Your task to perform on an android device: delete location history Image 0: 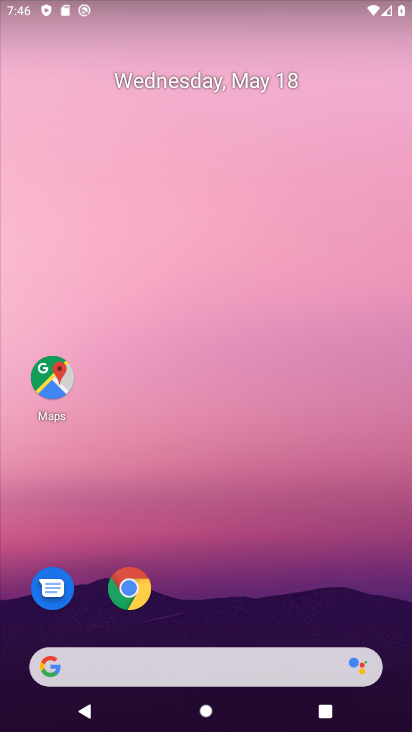
Step 0: drag from (195, 549) to (193, 39)
Your task to perform on an android device: delete location history Image 1: 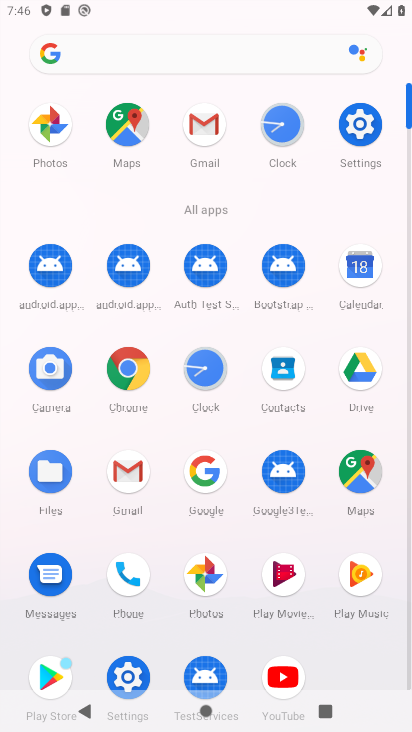
Step 1: click (360, 121)
Your task to perform on an android device: delete location history Image 2: 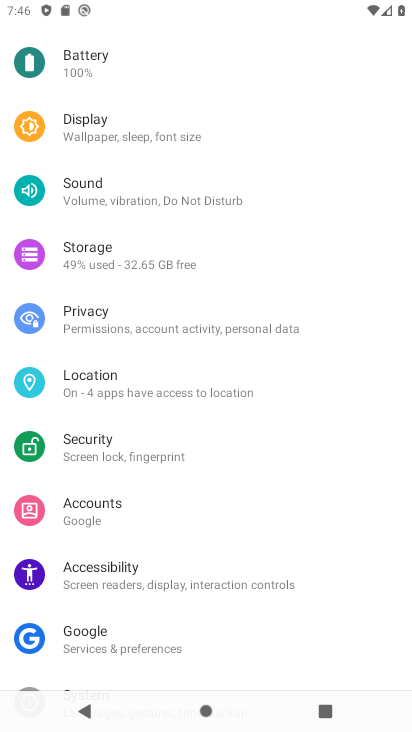
Step 2: click (141, 373)
Your task to perform on an android device: delete location history Image 3: 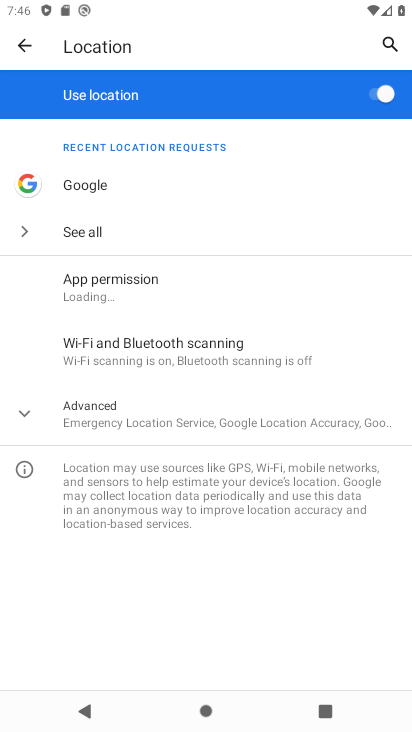
Step 3: click (129, 408)
Your task to perform on an android device: delete location history Image 4: 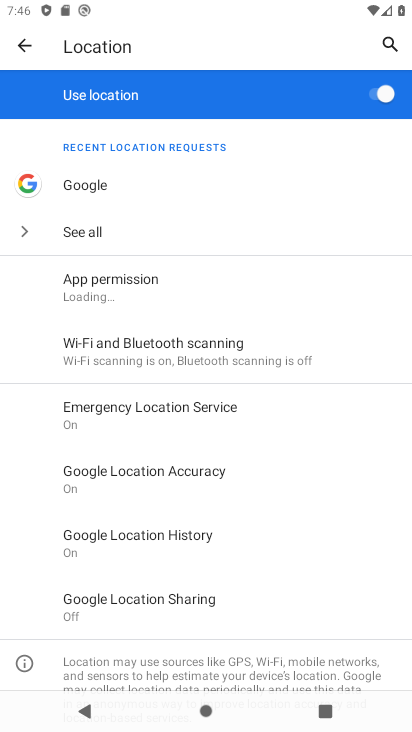
Step 4: click (183, 538)
Your task to perform on an android device: delete location history Image 5: 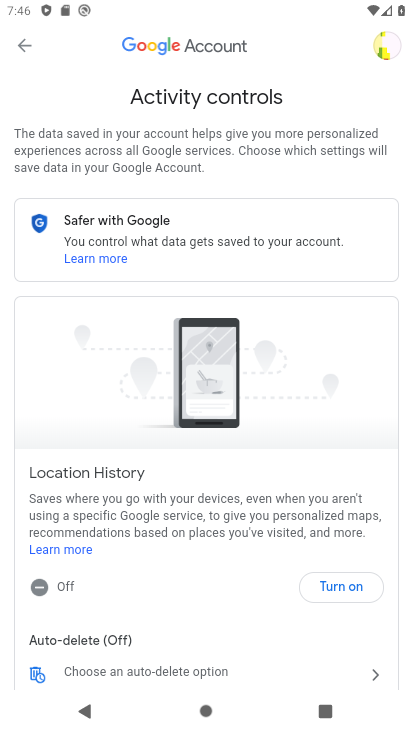
Step 5: drag from (243, 636) to (240, 142)
Your task to perform on an android device: delete location history Image 6: 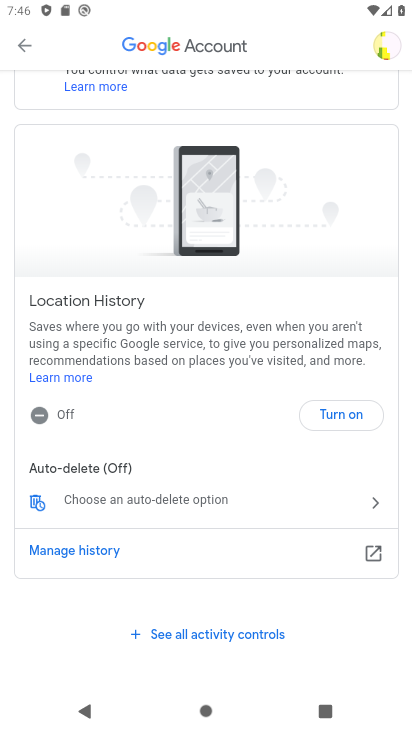
Step 6: click (70, 502)
Your task to perform on an android device: delete location history Image 7: 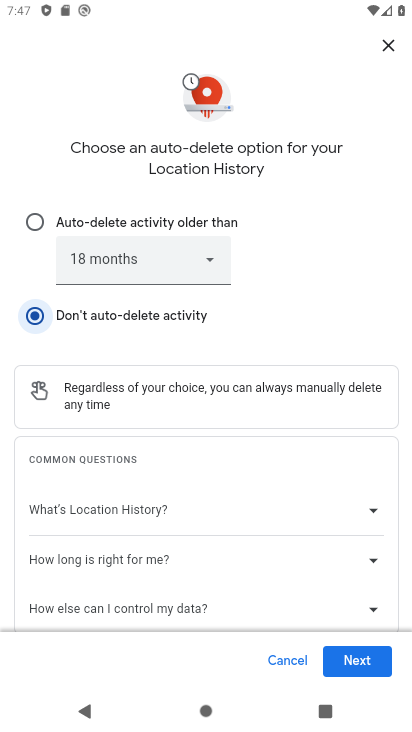
Step 7: click (367, 654)
Your task to perform on an android device: delete location history Image 8: 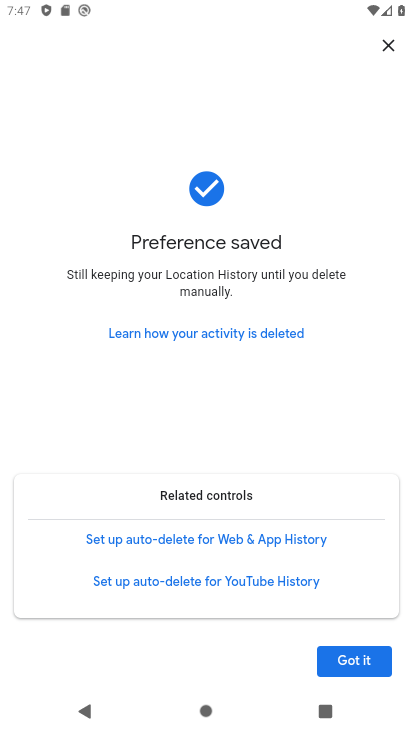
Step 8: task complete